Your task to perform on an android device: What's on my calendar tomorrow? Image 0: 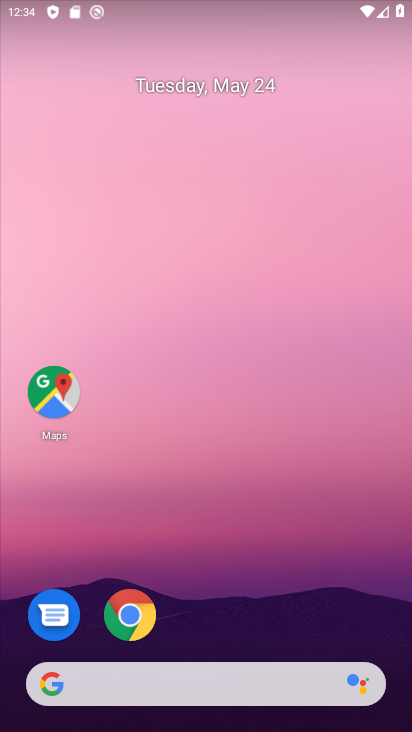
Step 0: press home button
Your task to perform on an android device: What's on my calendar tomorrow? Image 1: 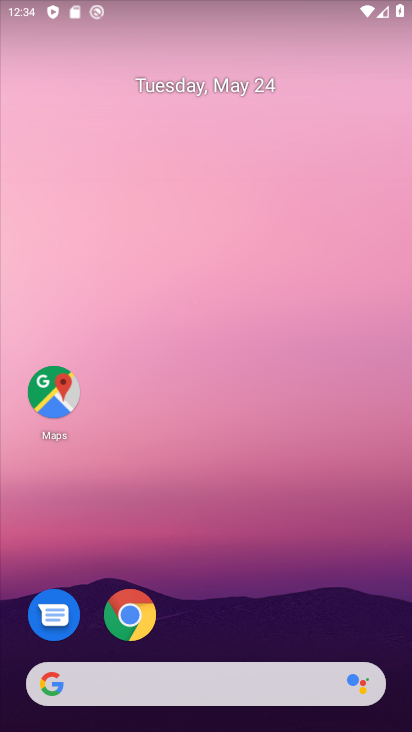
Step 1: drag from (228, 646) to (208, 83)
Your task to perform on an android device: What's on my calendar tomorrow? Image 2: 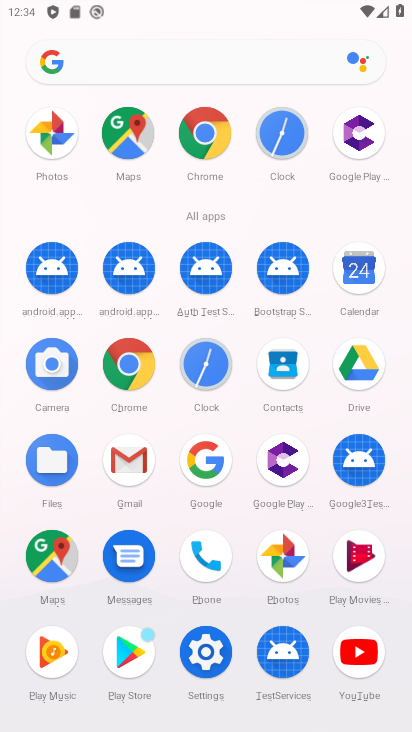
Step 2: click (356, 268)
Your task to perform on an android device: What's on my calendar tomorrow? Image 3: 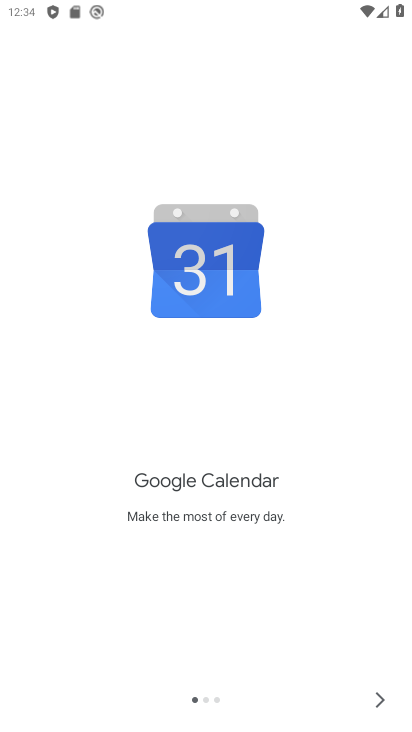
Step 3: click (376, 691)
Your task to perform on an android device: What's on my calendar tomorrow? Image 4: 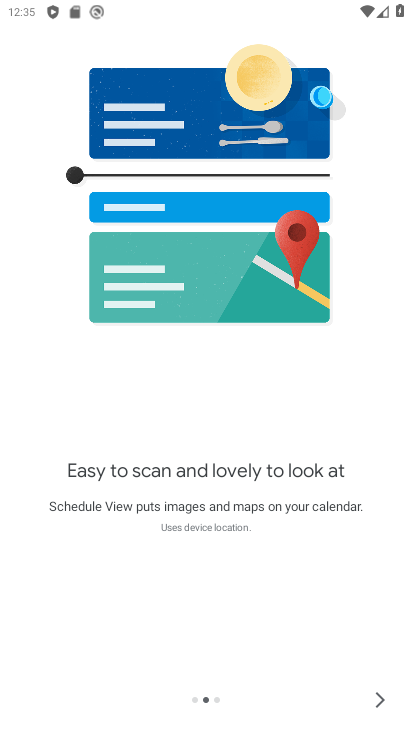
Step 4: click (376, 691)
Your task to perform on an android device: What's on my calendar tomorrow? Image 5: 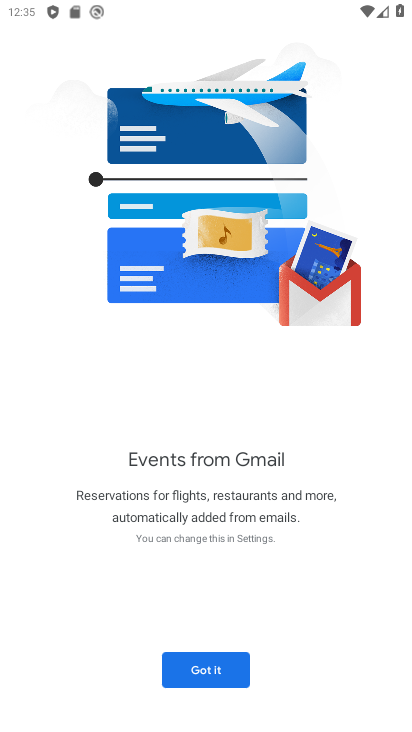
Step 5: click (210, 669)
Your task to perform on an android device: What's on my calendar tomorrow? Image 6: 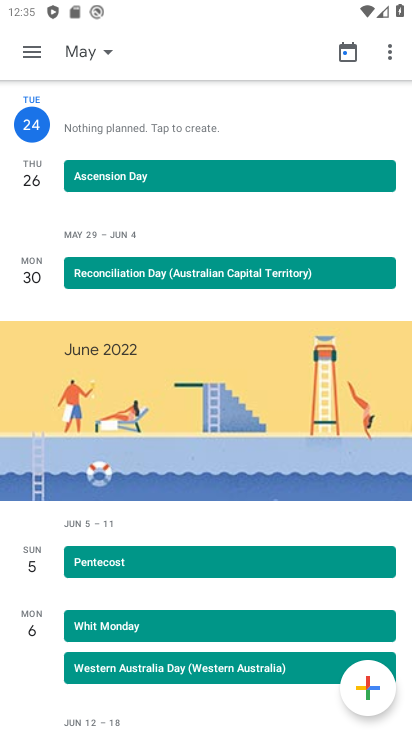
Step 6: click (56, 124)
Your task to perform on an android device: What's on my calendar tomorrow? Image 7: 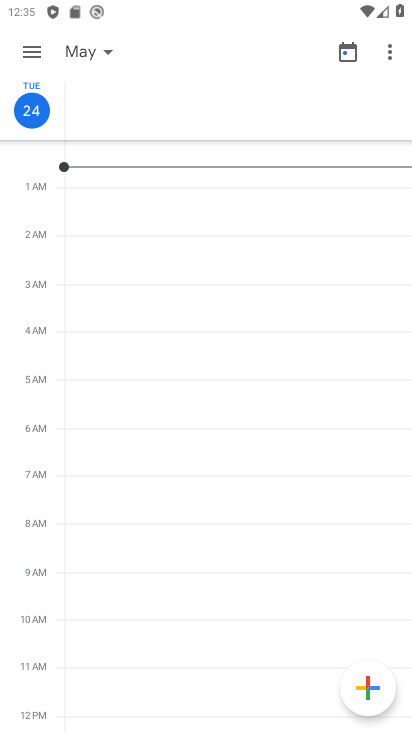
Step 7: task complete